Your task to perform on an android device: Go to Yahoo.com Image 0: 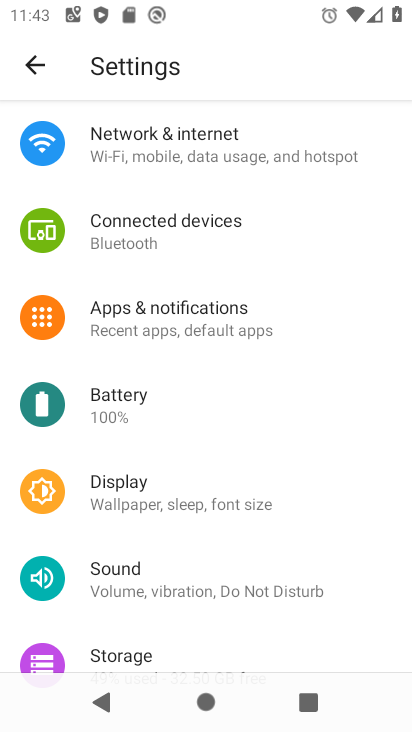
Step 0: press home button
Your task to perform on an android device: Go to Yahoo.com Image 1: 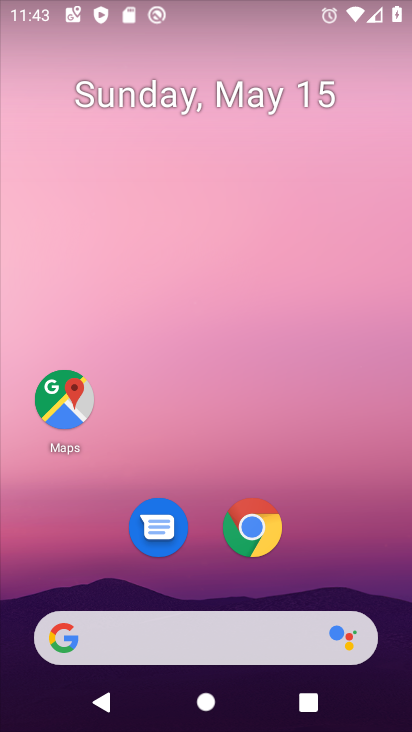
Step 1: click (272, 539)
Your task to perform on an android device: Go to Yahoo.com Image 2: 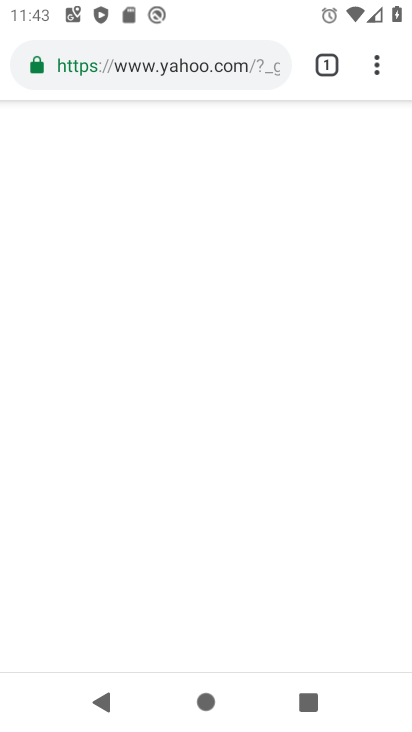
Step 2: click (209, 82)
Your task to perform on an android device: Go to Yahoo.com Image 3: 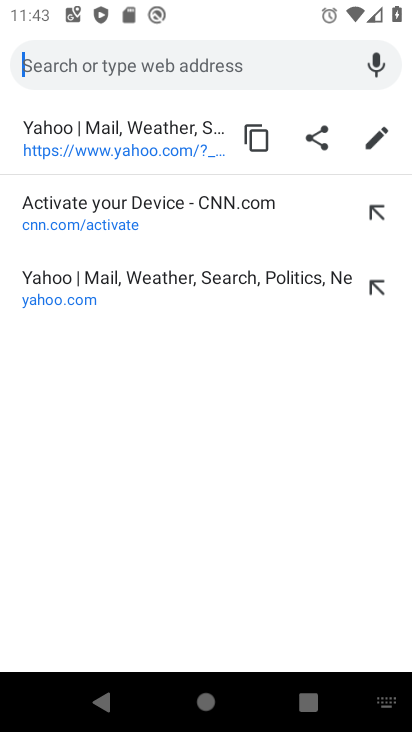
Step 3: click (145, 119)
Your task to perform on an android device: Go to Yahoo.com Image 4: 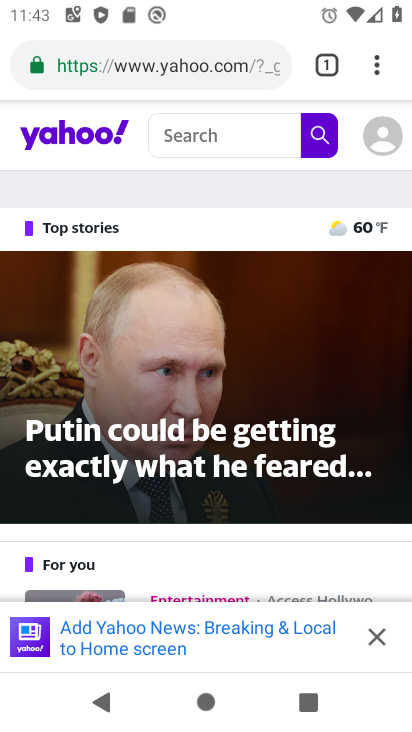
Step 4: task complete